Your task to perform on an android device: turn on data saver in the chrome app Image 0: 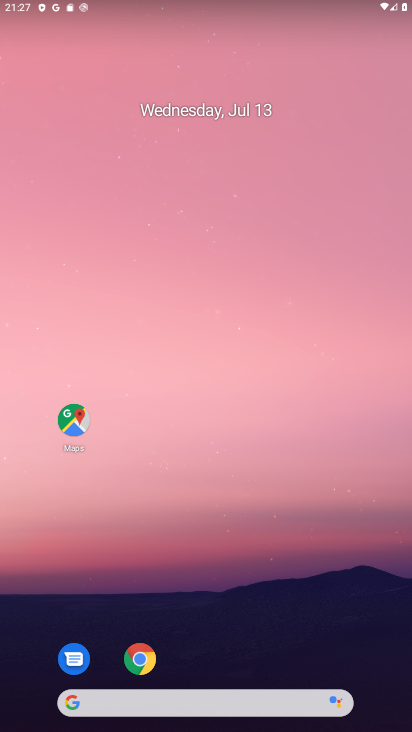
Step 0: drag from (233, 703) to (282, 200)
Your task to perform on an android device: turn on data saver in the chrome app Image 1: 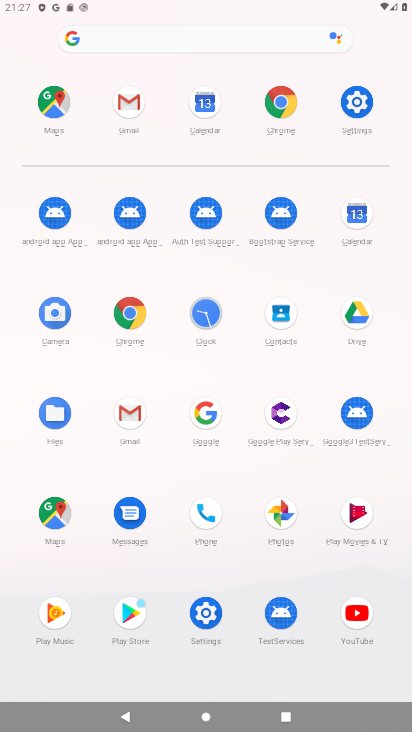
Step 1: click (278, 94)
Your task to perform on an android device: turn on data saver in the chrome app Image 2: 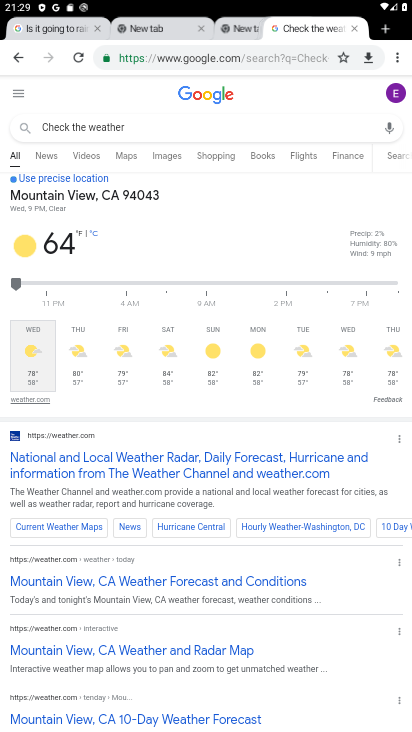
Step 2: click (393, 63)
Your task to perform on an android device: turn on data saver in the chrome app Image 3: 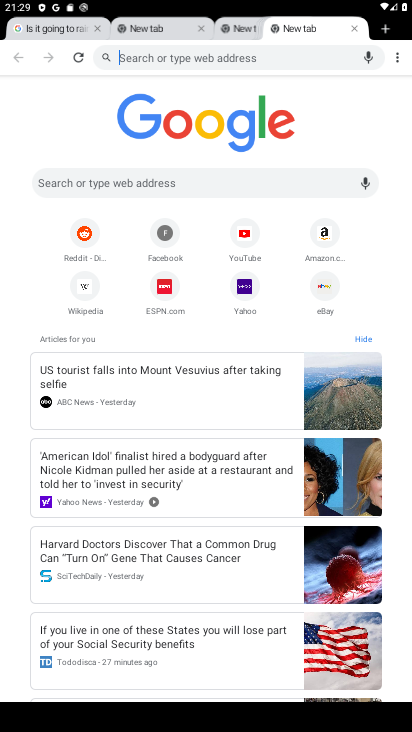
Step 3: click (400, 62)
Your task to perform on an android device: turn on data saver in the chrome app Image 4: 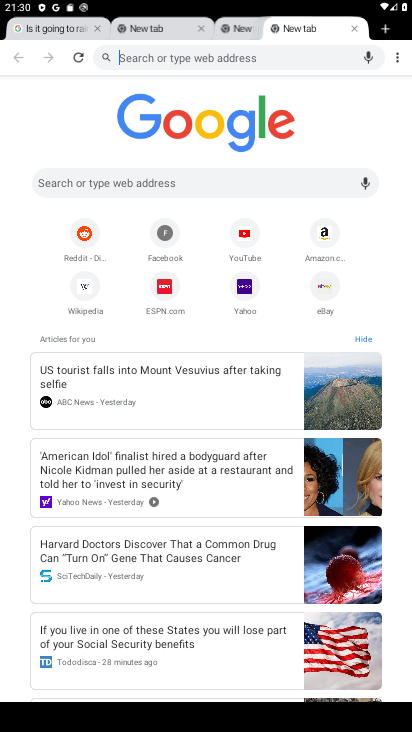
Step 4: click (399, 59)
Your task to perform on an android device: turn on data saver in the chrome app Image 5: 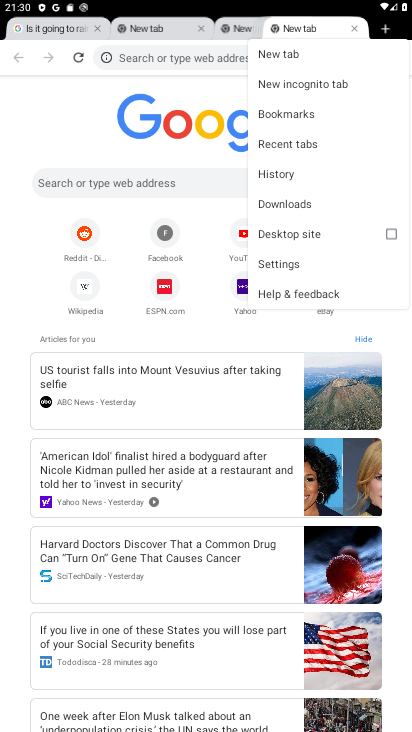
Step 5: click (288, 261)
Your task to perform on an android device: turn on data saver in the chrome app Image 6: 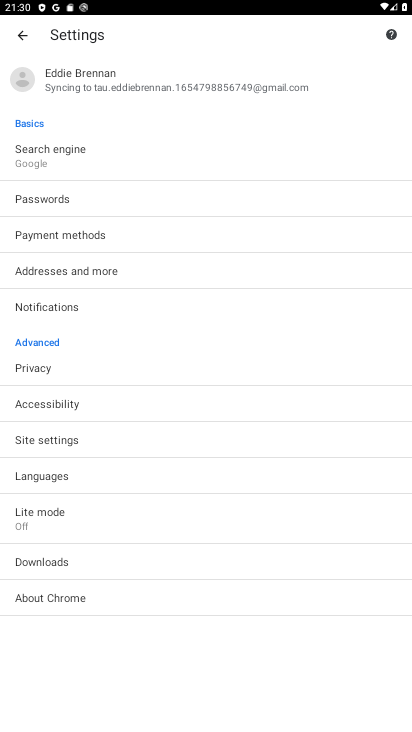
Step 6: click (45, 525)
Your task to perform on an android device: turn on data saver in the chrome app Image 7: 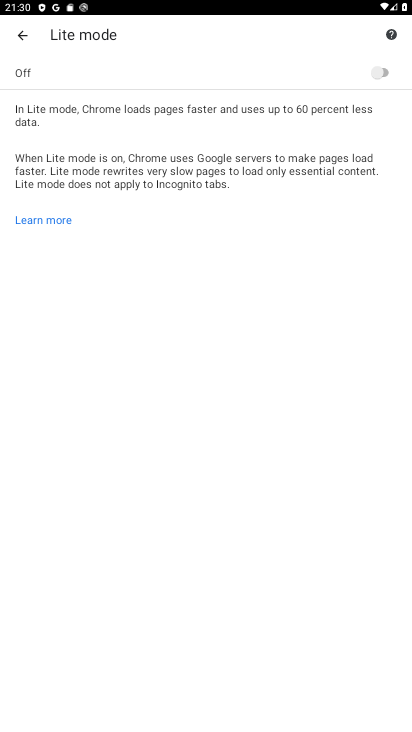
Step 7: click (383, 73)
Your task to perform on an android device: turn on data saver in the chrome app Image 8: 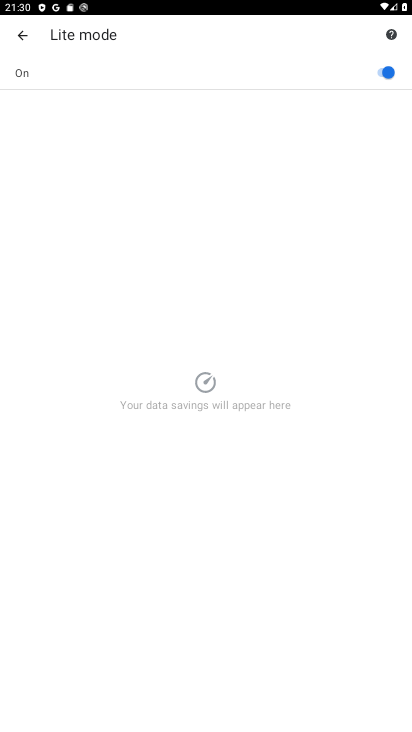
Step 8: task complete